Your task to perform on an android device: turn off sleep mode Image 0: 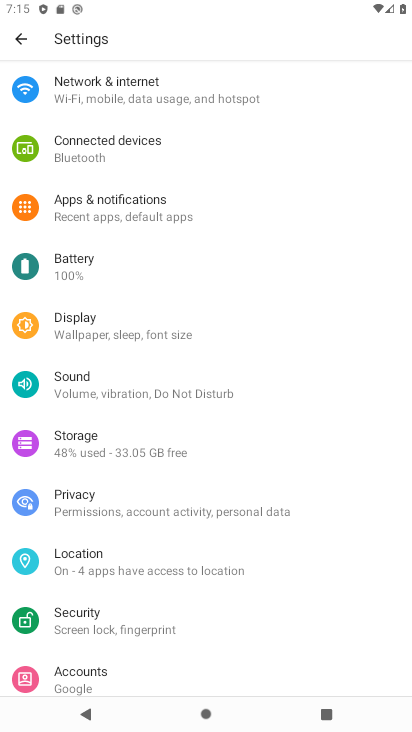
Step 0: press home button
Your task to perform on an android device: turn off sleep mode Image 1: 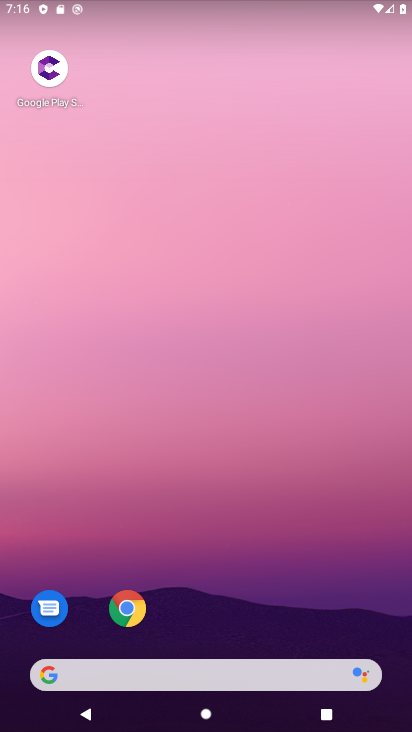
Step 1: drag from (163, 671) to (265, 494)
Your task to perform on an android device: turn off sleep mode Image 2: 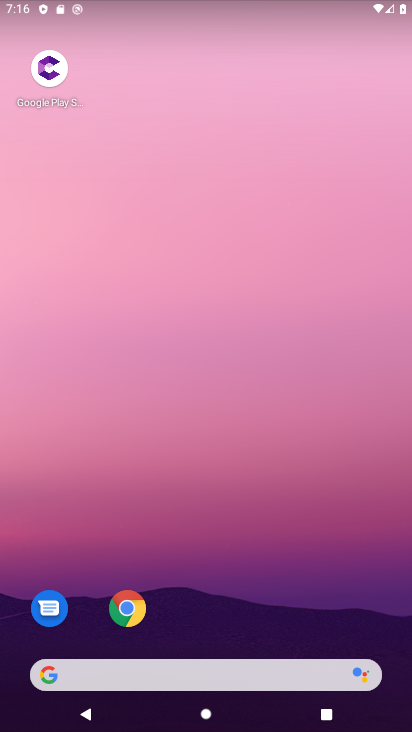
Step 2: drag from (197, 665) to (229, 267)
Your task to perform on an android device: turn off sleep mode Image 3: 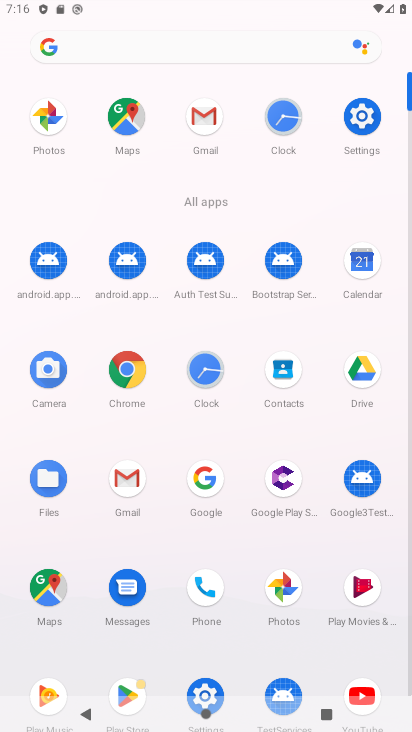
Step 3: click (363, 112)
Your task to perform on an android device: turn off sleep mode Image 4: 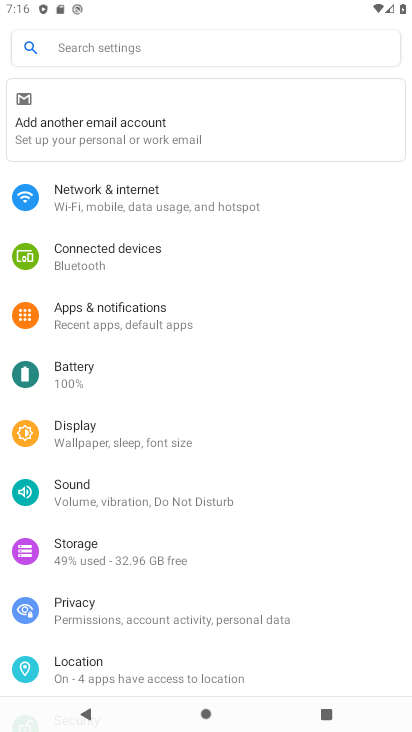
Step 4: click (117, 443)
Your task to perform on an android device: turn off sleep mode Image 5: 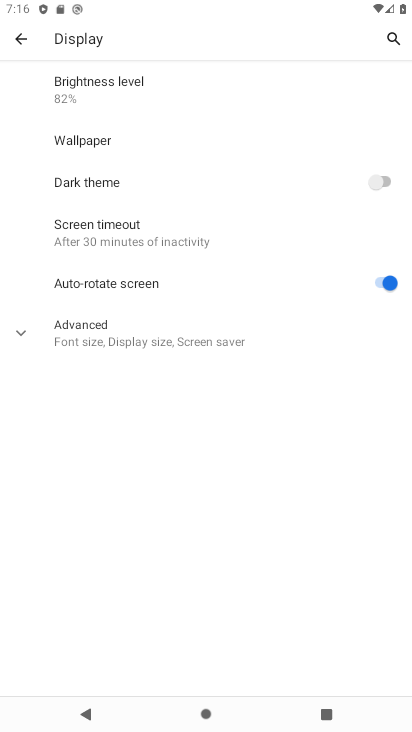
Step 5: click (157, 344)
Your task to perform on an android device: turn off sleep mode Image 6: 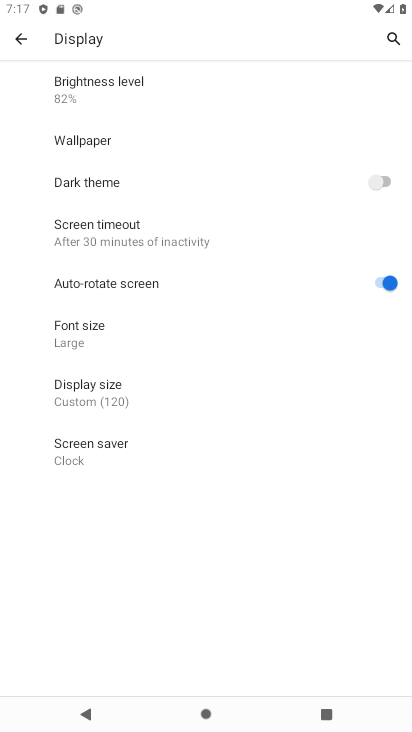
Step 6: task complete